Your task to perform on an android device: turn off location Image 0: 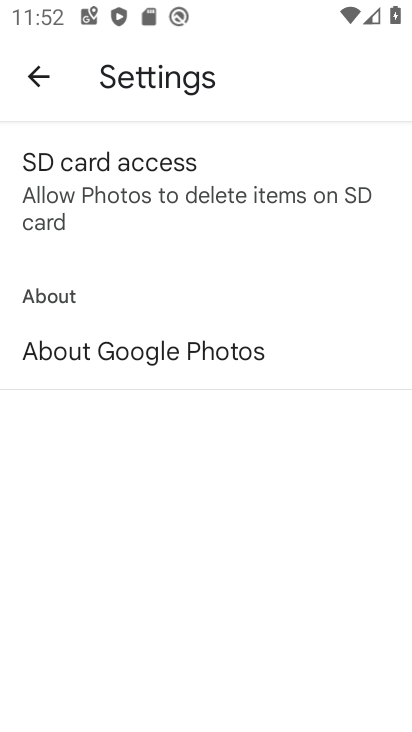
Step 0: press home button
Your task to perform on an android device: turn off location Image 1: 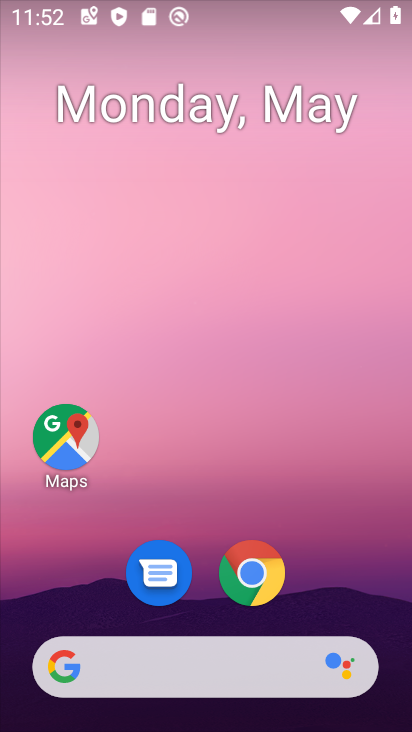
Step 1: drag from (192, 614) to (254, 8)
Your task to perform on an android device: turn off location Image 2: 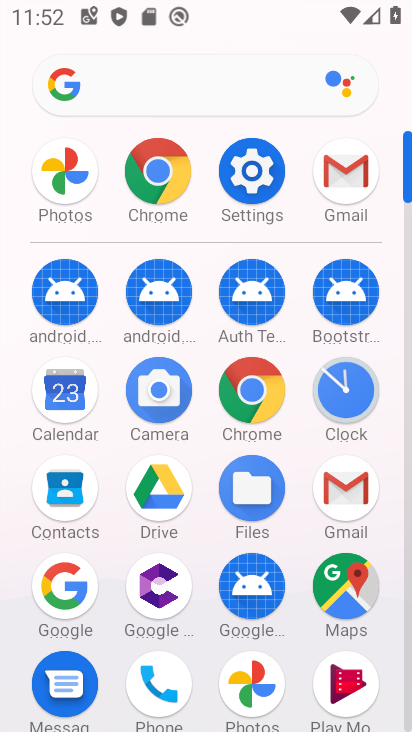
Step 2: click (263, 192)
Your task to perform on an android device: turn off location Image 3: 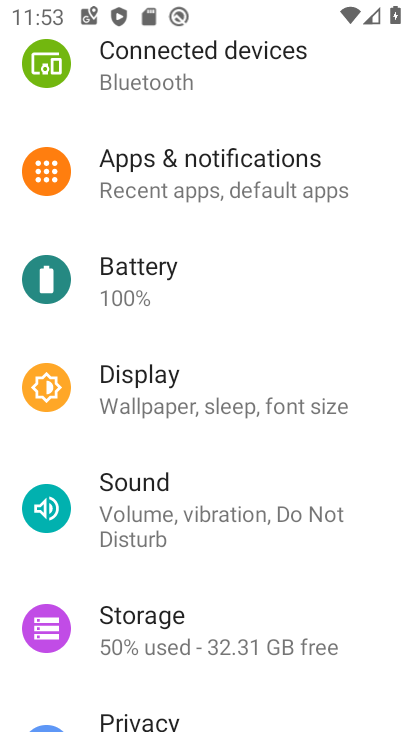
Step 3: drag from (191, 625) to (230, 140)
Your task to perform on an android device: turn off location Image 4: 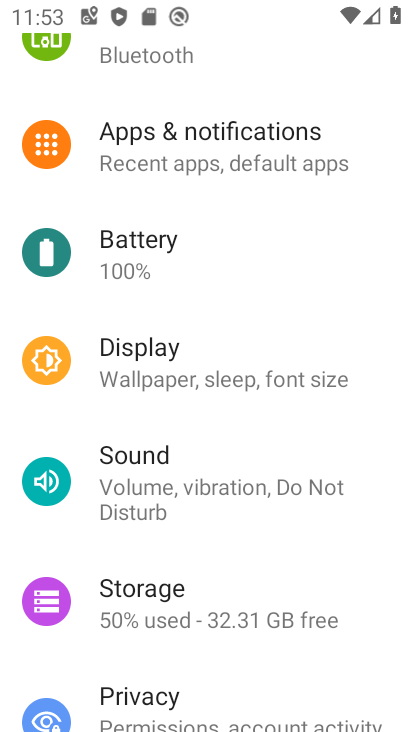
Step 4: drag from (231, 595) to (262, 169)
Your task to perform on an android device: turn off location Image 5: 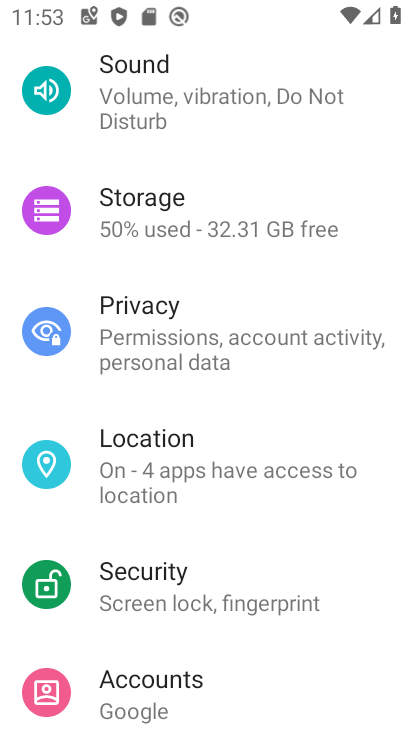
Step 5: click (248, 464)
Your task to perform on an android device: turn off location Image 6: 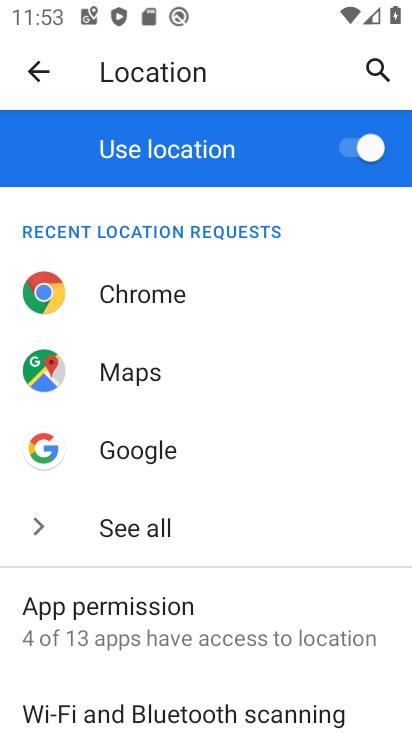
Step 6: click (328, 153)
Your task to perform on an android device: turn off location Image 7: 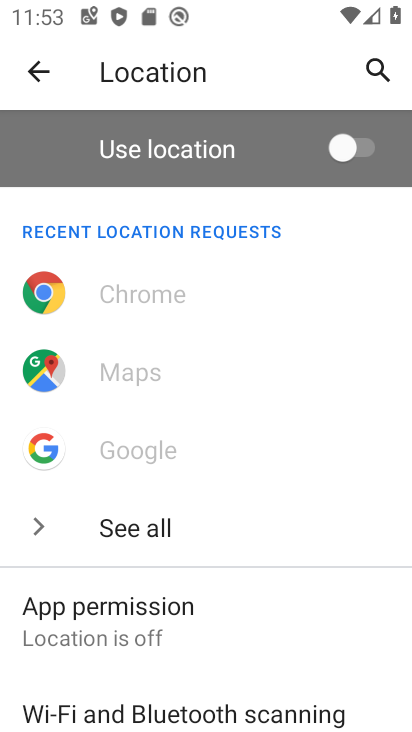
Step 7: task complete